Your task to perform on an android device: Go to notification settings Image 0: 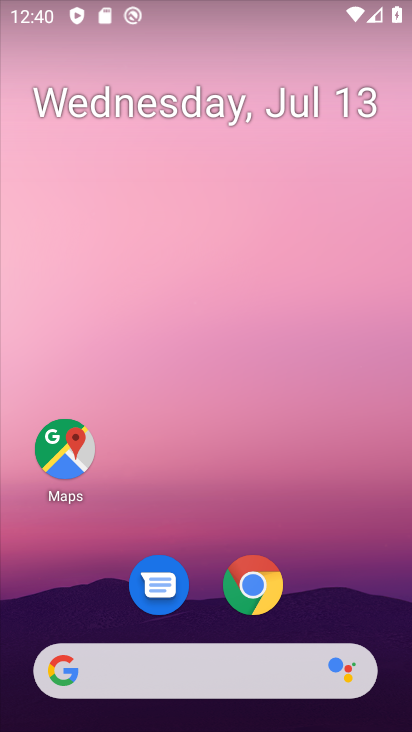
Step 0: drag from (301, 440) to (306, 97)
Your task to perform on an android device: Go to notification settings Image 1: 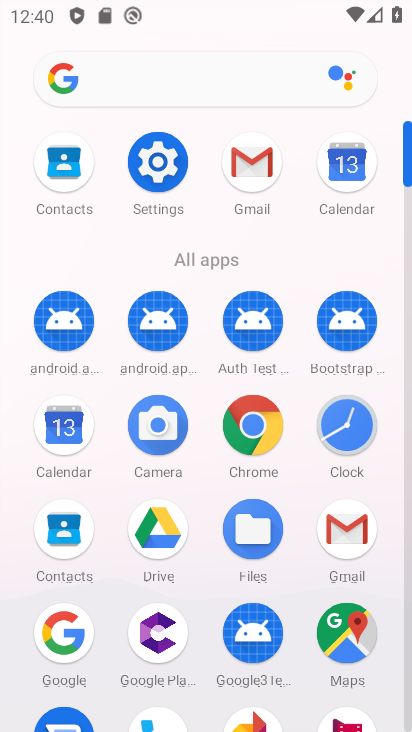
Step 1: click (161, 164)
Your task to perform on an android device: Go to notification settings Image 2: 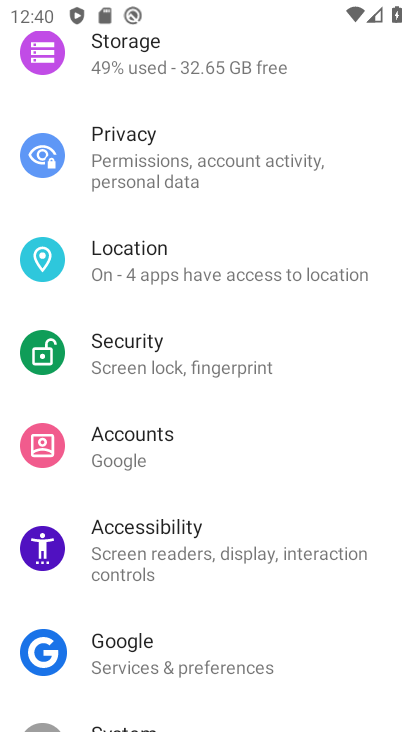
Step 2: drag from (272, 231) to (287, 643)
Your task to perform on an android device: Go to notification settings Image 3: 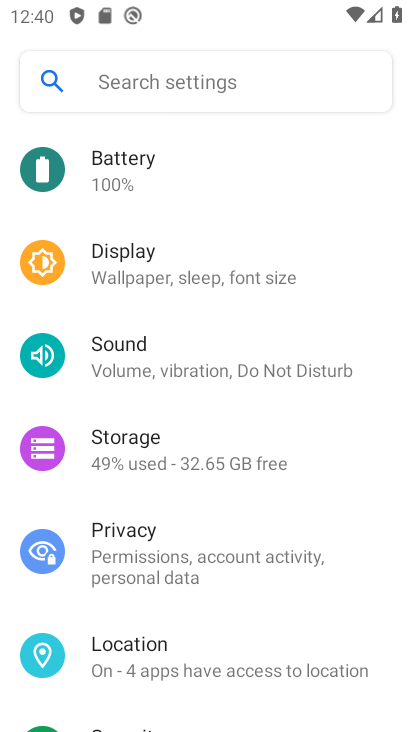
Step 3: drag from (222, 288) to (238, 592)
Your task to perform on an android device: Go to notification settings Image 4: 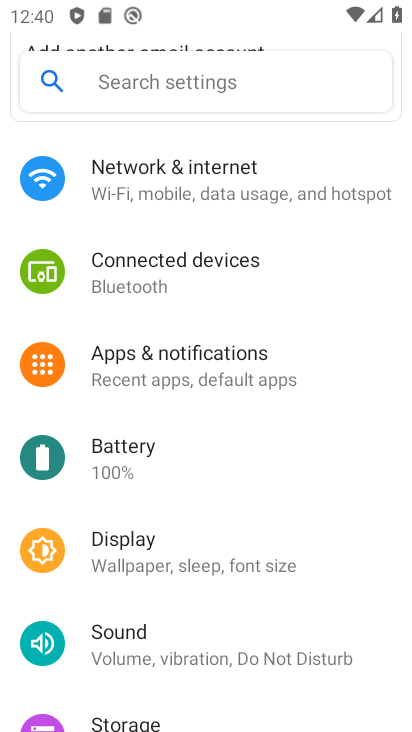
Step 4: click (208, 359)
Your task to perform on an android device: Go to notification settings Image 5: 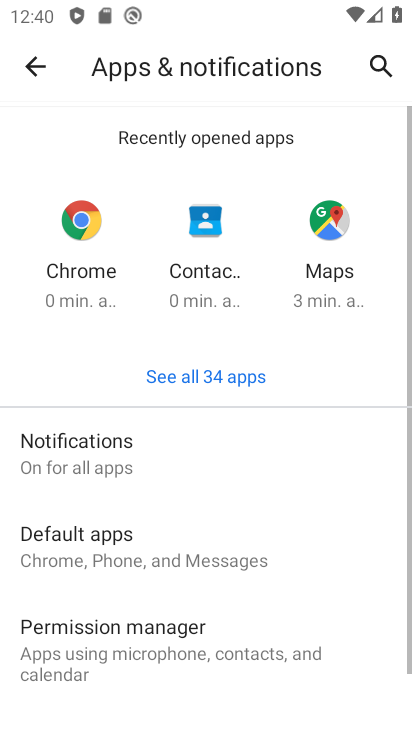
Step 5: click (126, 444)
Your task to perform on an android device: Go to notification settings Image 6: 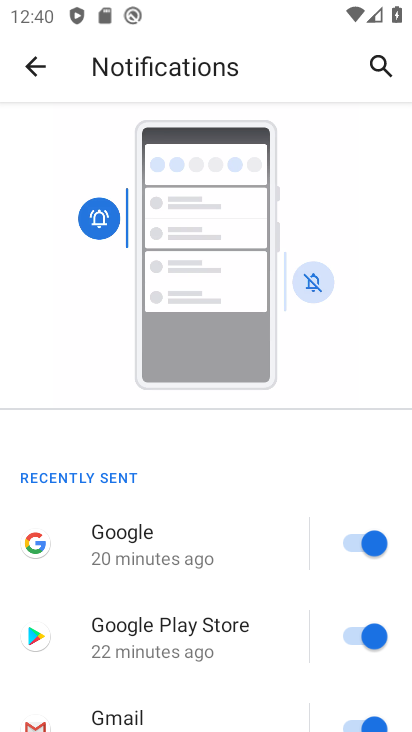
Step 6: task complete